Your task to perform on an android device: toggle translation in the chrome app Image 0: 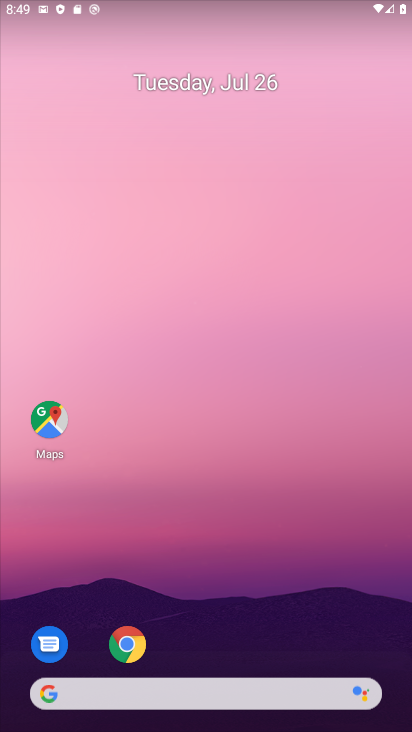
Step 0: click (117, 639)
Your task to perform on an android device: toggle translation in the chrome app Image 1: 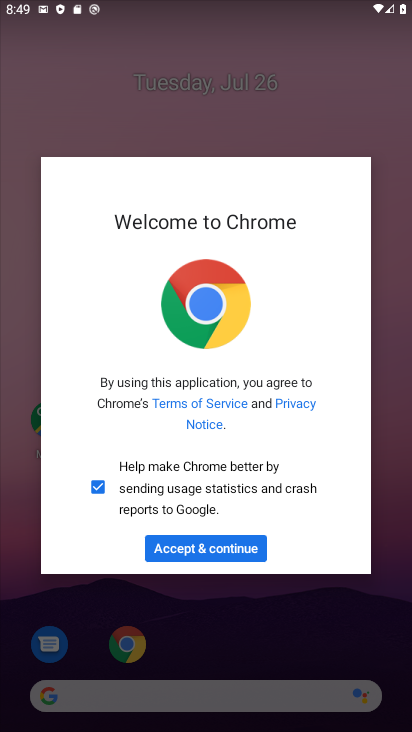
Step 1: click (237, 537)
Your task to perform on an android device: toggle translation in the chrome app Image 2: 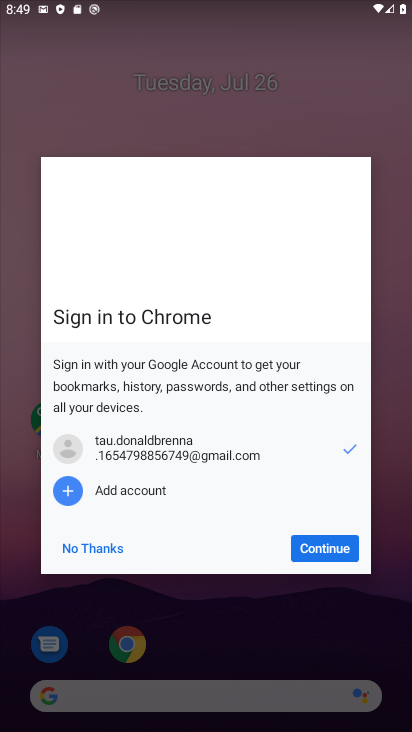
Step 2: click (293, 549)
Your task to perform on an android device: toggle translation in the chrome app Image 3: 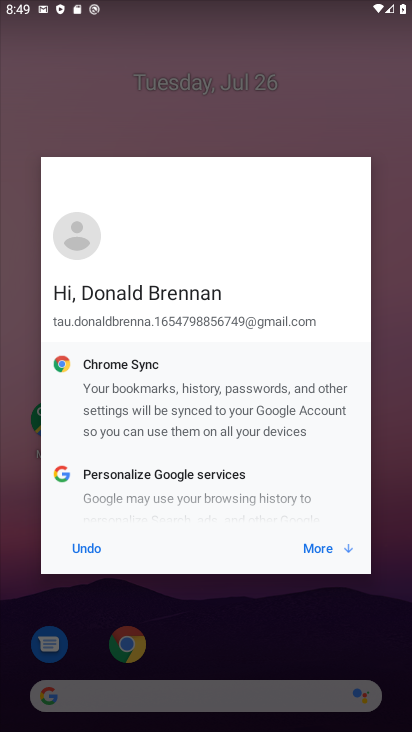
Step 3: click (340, 546)
Your task to perform on an android device: toggle translation in the chrome app Image 4: 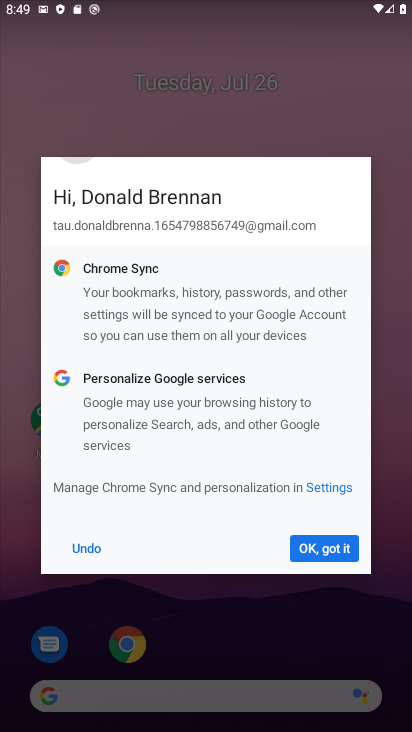
Step 4: click (340, 546)
Your task to perform on an android device: toggle translation in the chrome app Image 5: 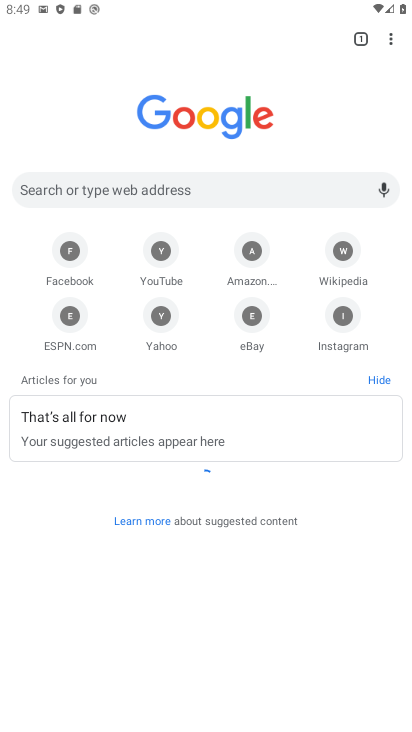
Step 5: click (380, 32)
Your task to perform on an android device: toggle translation in the chrome app Image 6: 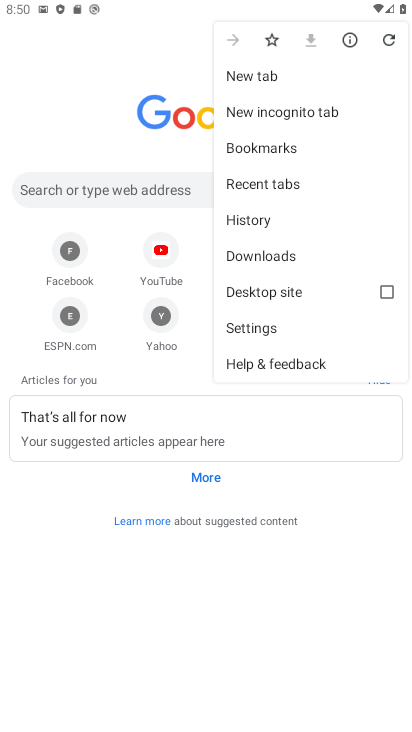
Step 6: click (260, 336)
Your task to perform on an android device: toggle translation in the chrome app Image 7: 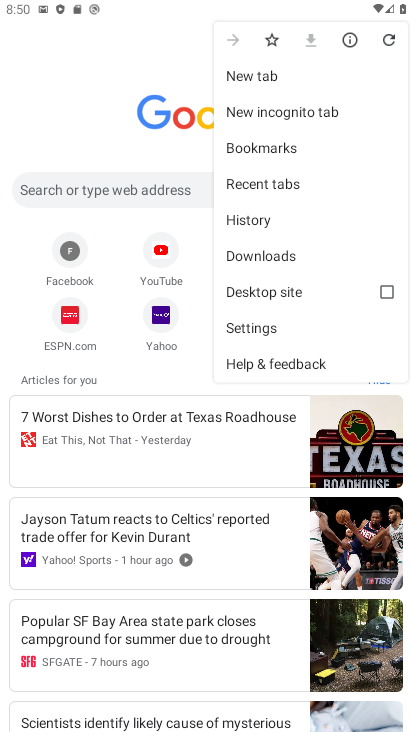
Step 7: click (271, 323)
Your task to perform on an android device: toggle translation in the chrome app Image 8: 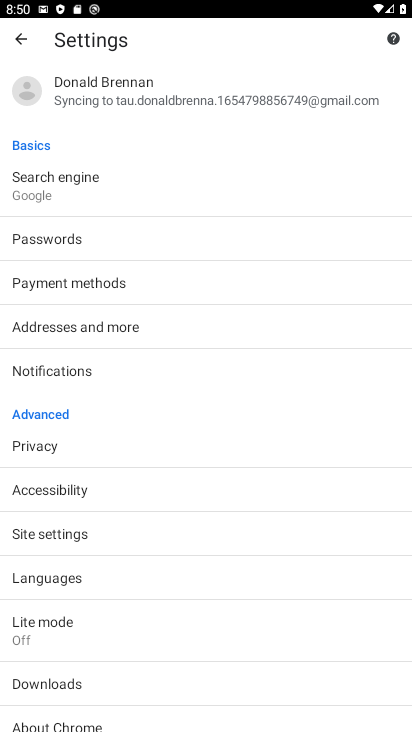
Step 8: click (98, 565)
Your task to perform on an android device: toggle translation in the chrome app Image 9: 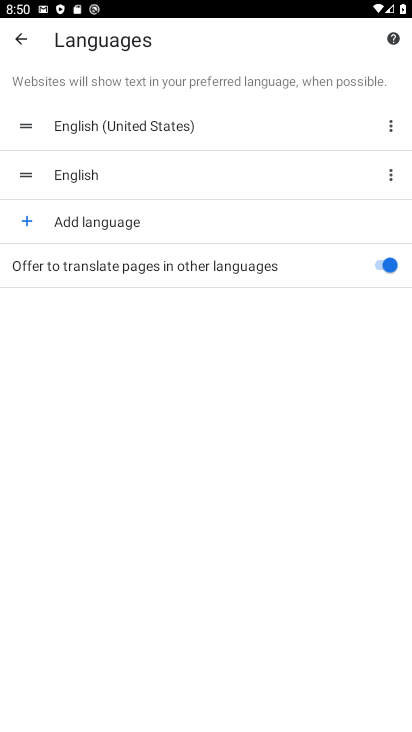
Step 9: click (380, 256)
Your task to perform on an android device: toggle translation in the chrome app Image 10: 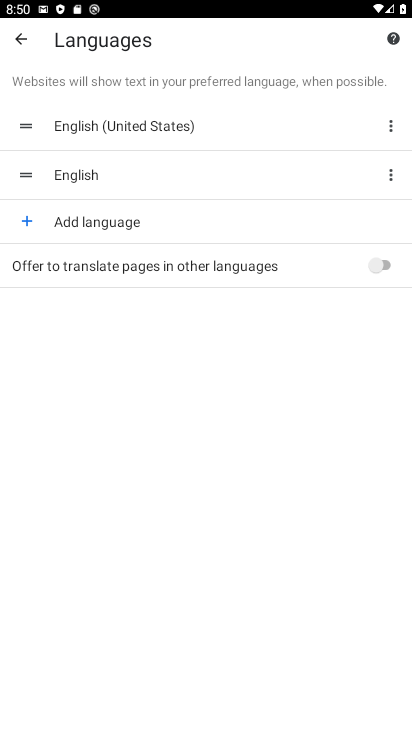
Step 10: task complete